Your task to perform on an android device: change the clock style Image 0: 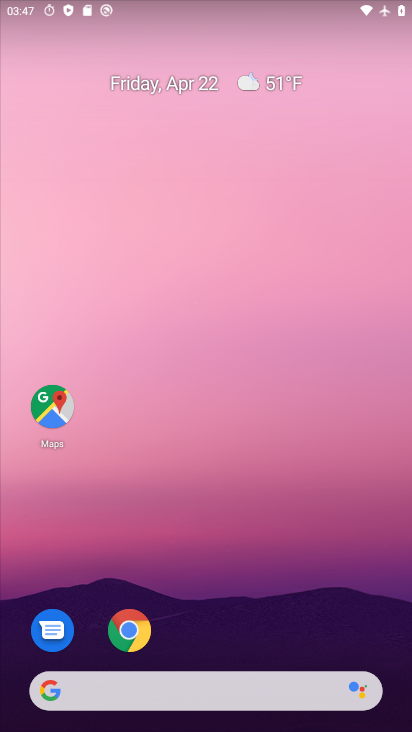
Step 0: drag from (276, 604) to (248, 66)
Your task to perform on an android device: change the clock style Image 1: 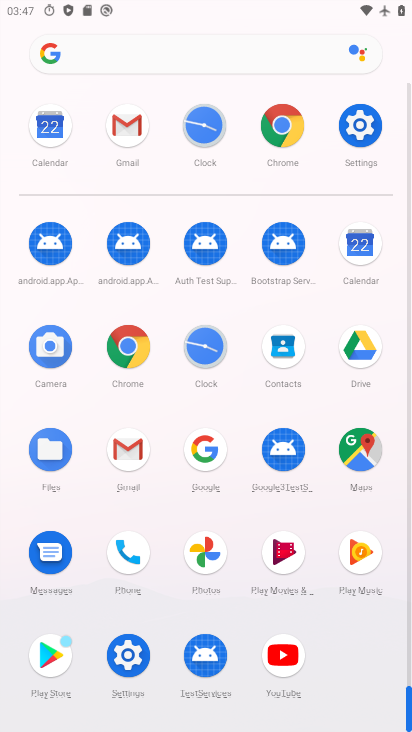
Step 1: drag from (12, 529) to (10, 247)
Your task to perform on an android device: change the clock style Image 2: 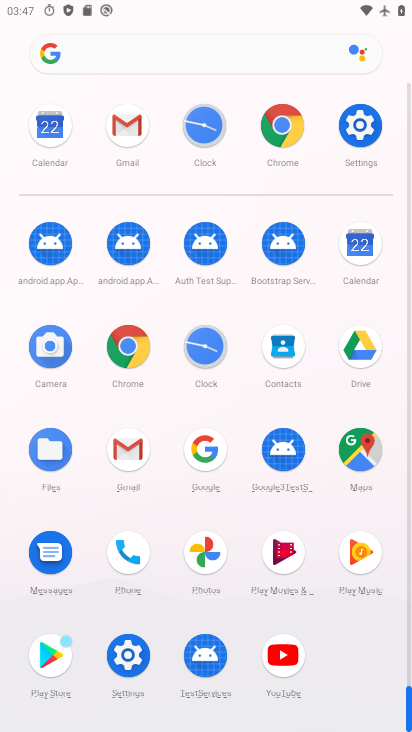
Step 2: click (200, 337)
Your task to perform on an android device: change the clock style Image 3: 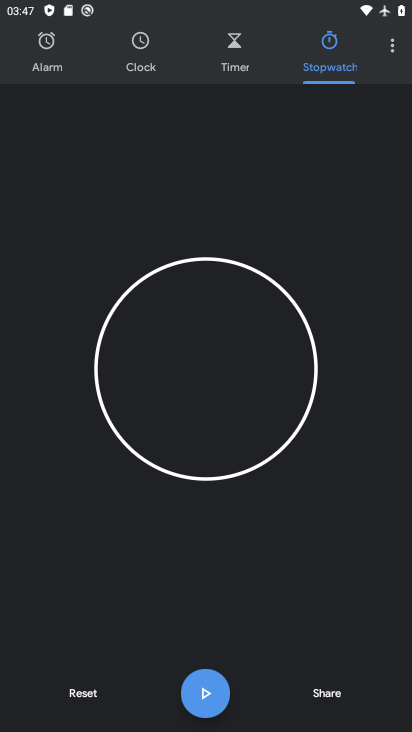
Step 3: click (391, 46)
Your task to perform on an android device: change the clock style Image 4: 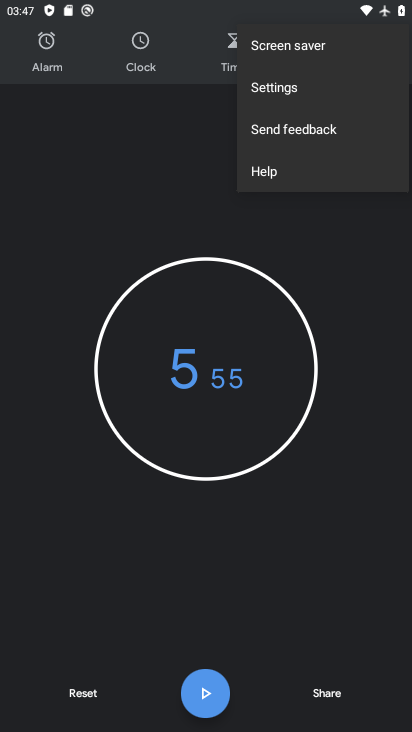
Step 4: click (308, 81)
Your task to perform on an android device: change the clock style Image 5: 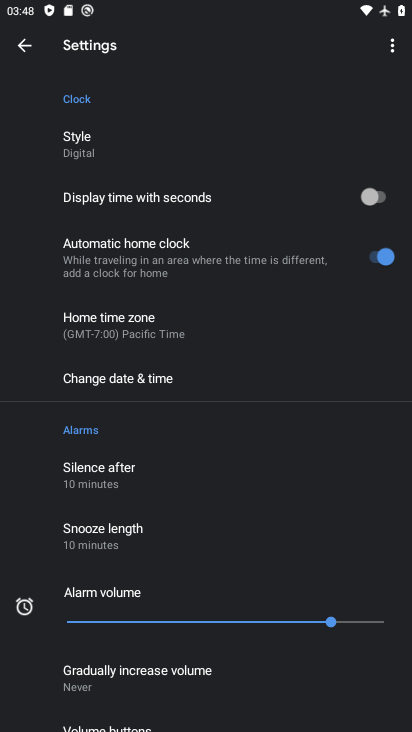
Step 5: click (176, 131)
Your task to perform on an android device: change the clock style Image 6: 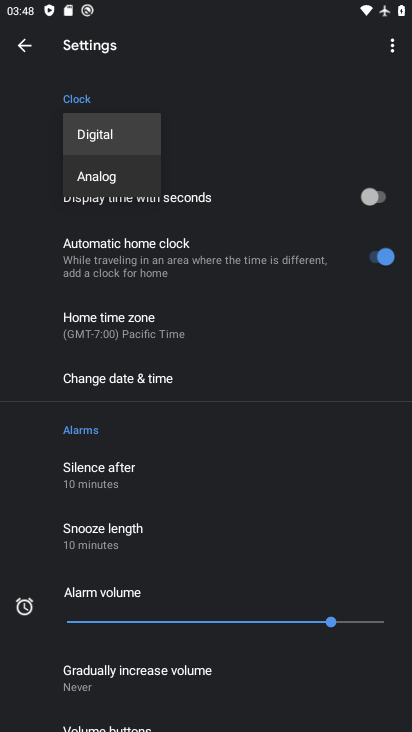
Step 6: click (124, 166)
Your task to perform on an android device: change the clock style Image 7: 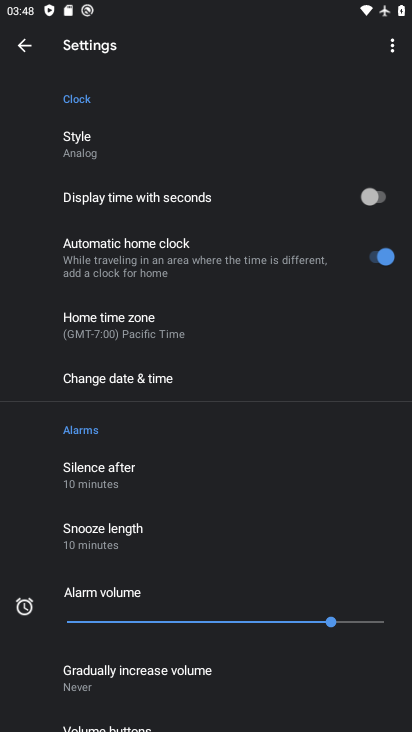
Step 7: task complete